Your task to perform on an android device: Turn on the flashlight Image 0: 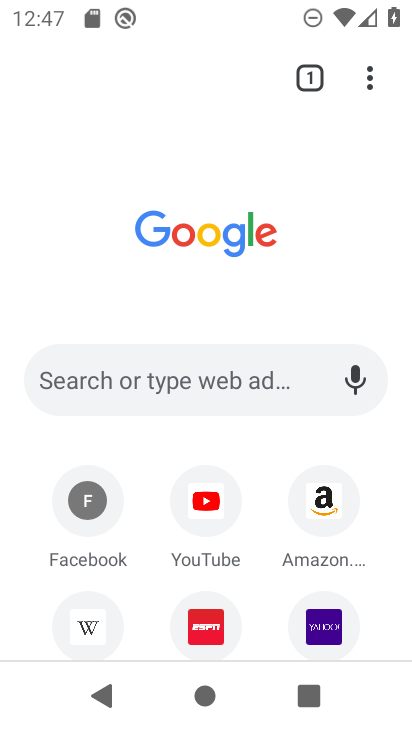
Step 0: press home button
Your task to perform on an android device: Turn on the flashlight Image 1: 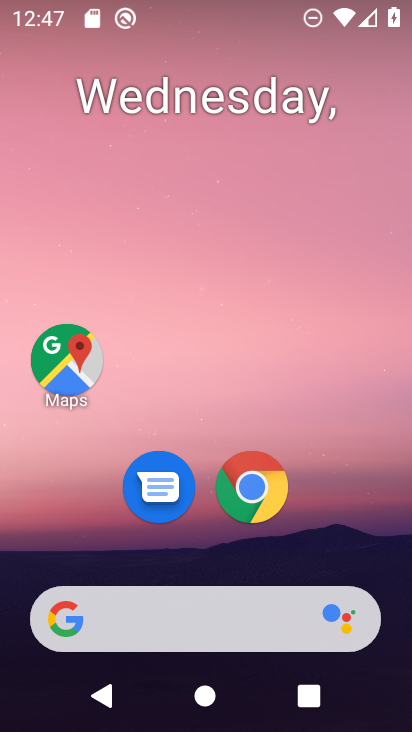
Step 1: drag from (248, 6) to (264, 345)
Your task to perform on an android device: Turn on the flashlight Image 2: 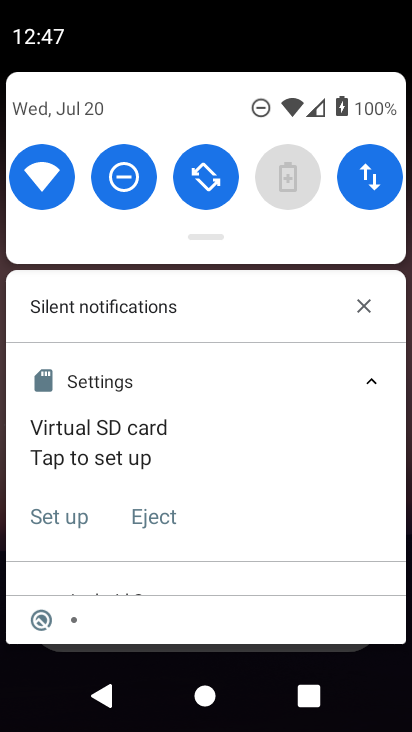
Step 2: drag from (160, 113) to (185, 386)
Your task to perform on an android device: Turn on the flashlight Image 3: 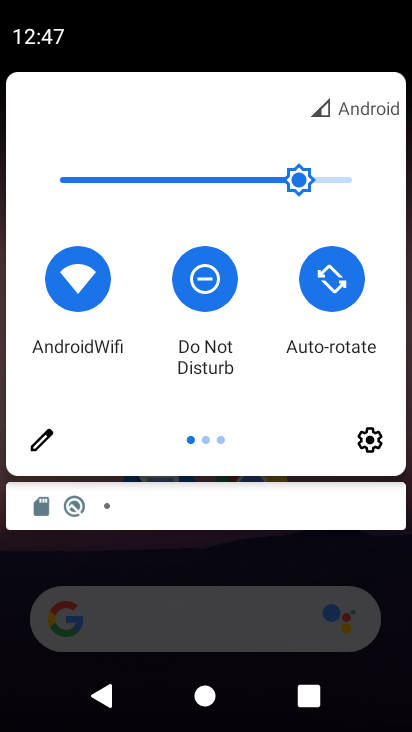
Step 3: click (43, 443)
Your task to perform on an android device: Turn on the flashlight Image 4: 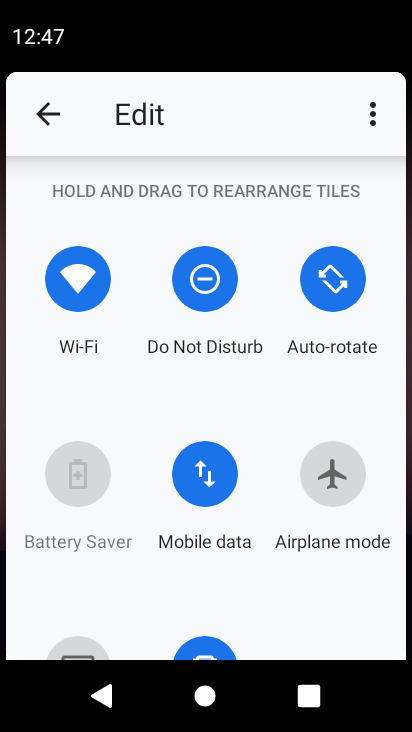
Step 4: task complete